Your task to perform on an android device: Open calendar and show me the first week of next month Image 0: 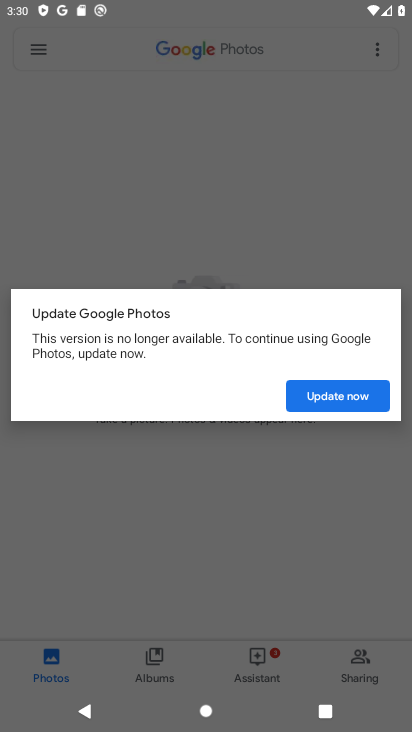
Step 0: press home button
Your task to perform on an android device: Open calendar and show me the first week of next month Image 1: 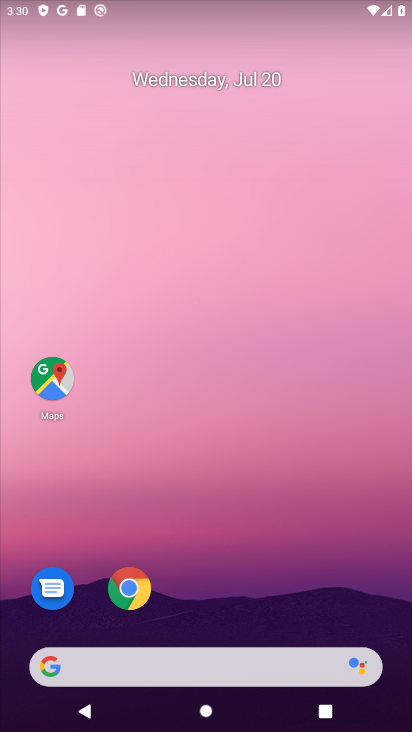
Step 1: click (202, 72)
Your task to perform on an android device: Open calendar and show me the first week of next month Image 2: 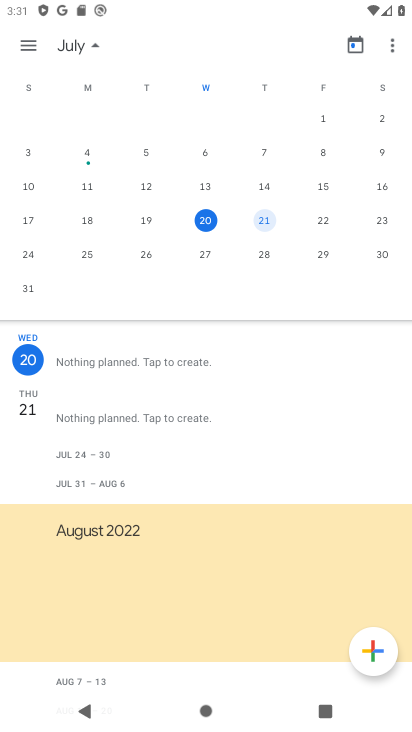
Step 2: drag from (351, 285) to (117, 287)
Your task to perform on an android device: Open calendar and show me the first week of next month Image 3: 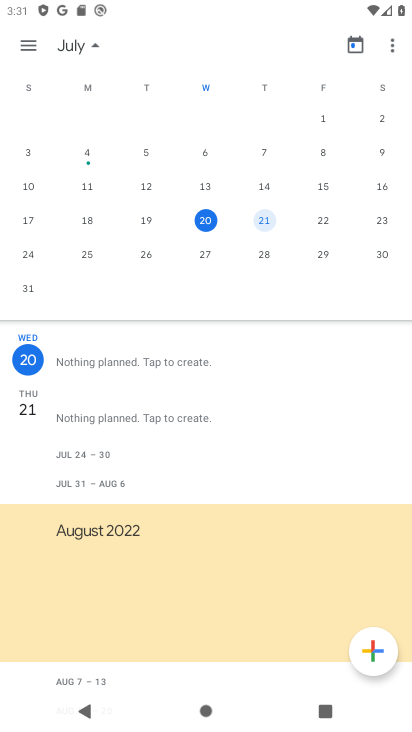
Step 3: click (326, 119)
Your task to perform on an android device: Open calendar and show me the first week of next month Image 4: 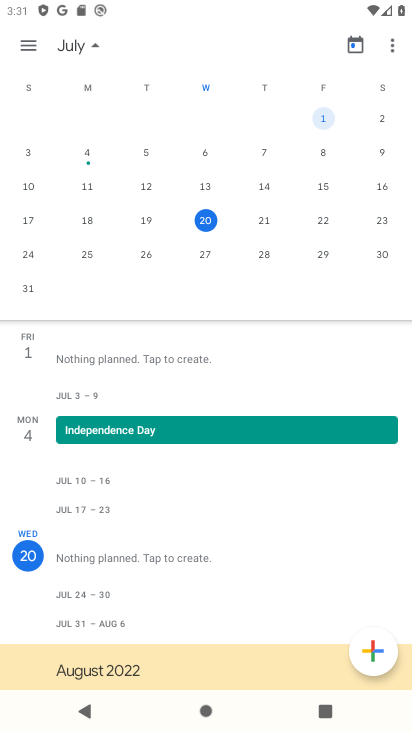
Step 4: task complete